Your task to perform on an android device: manage bookmarks in the chrome app Image 0: 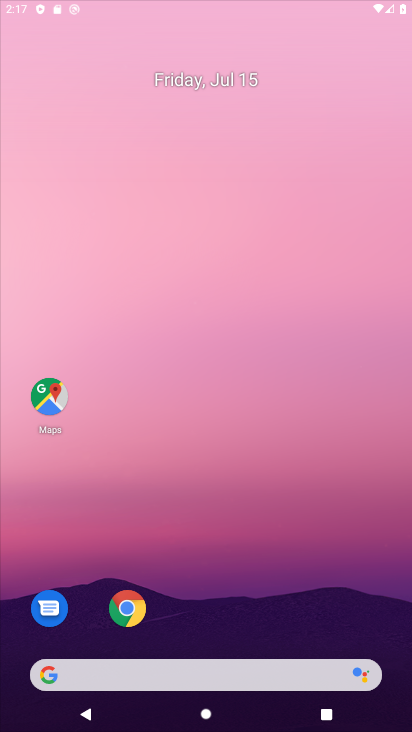
Step 0: click (267, 21)
Your task to perform on an android device: manage bookmarks in the chrome app Image 1: 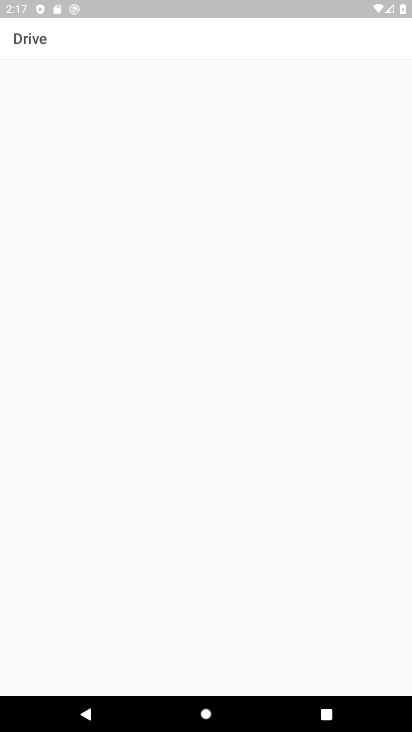
Step 1: press home button
Your task to perform on an android device: manage bookmarks in the chrome app Image 2: 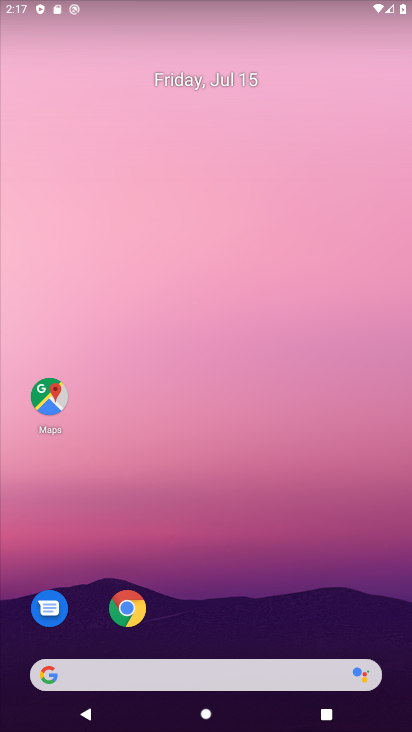
Step 2: drag from (348, 639) to (260, 96)
Your task to perform on an android device: manage bookmarks in the chrome app Image 3: 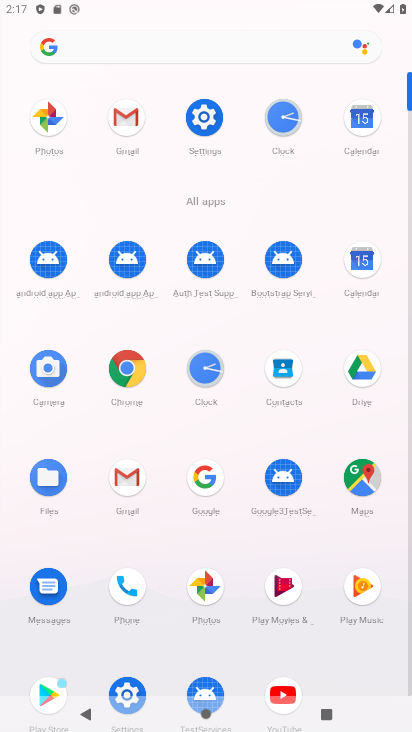
Step 3: click (130, 376)
Your task to perform on an android device: manage bookmarks in the chrome app Image 4: 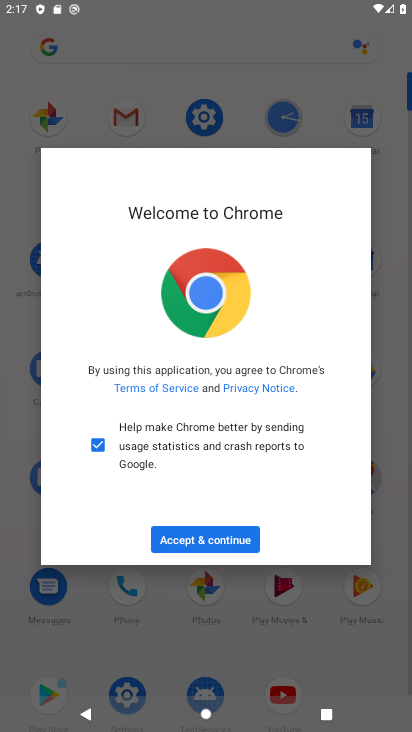
Step 4: click (203, 537)
Your task to perform on an android device: manage bookmarks in the chrome app Image 5: 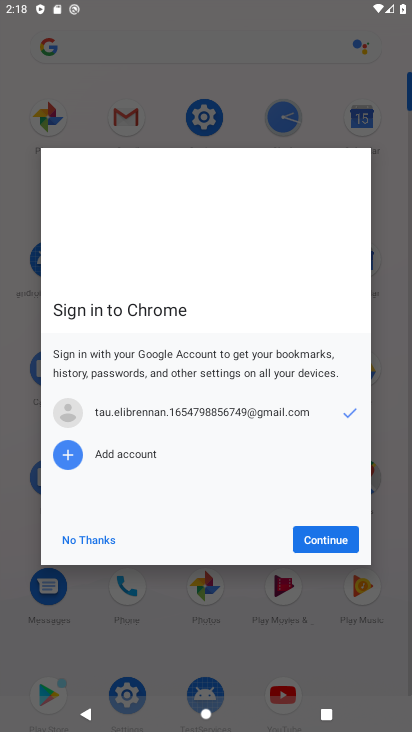
Step 5: click (324, 537)
Your task to perform on an android device: manage bookmarks in the chrome app Image 6: 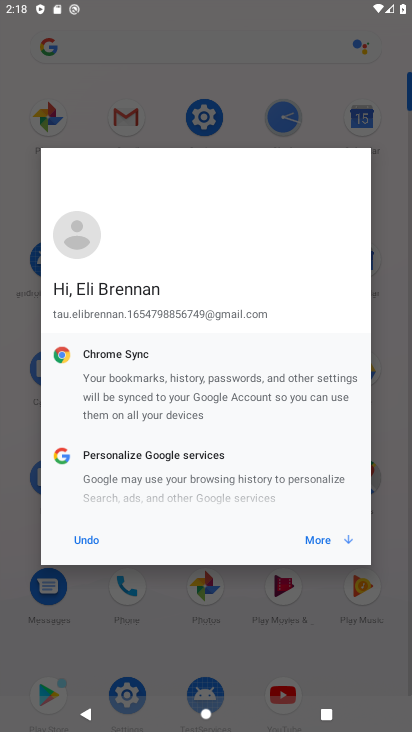
Step 6: click (324, 537)
Your task to perform on an android device: manage bookmarks in the chrome app Image 7: 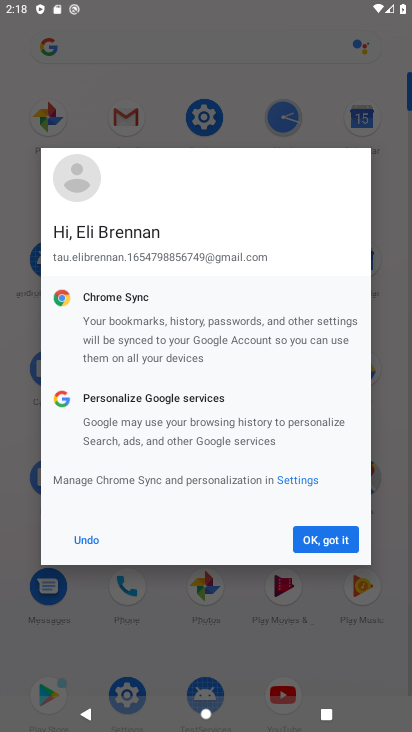
Step 7: click (348, 541)
Your task to perform on an android device: manage bookmarks in the chrome app Image 8: 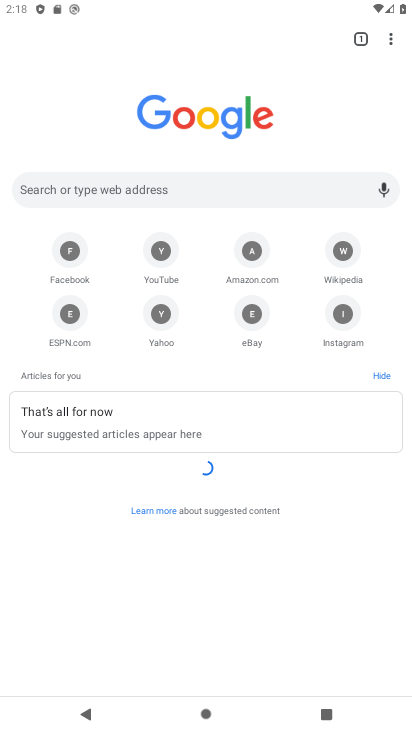
Step 8: click (396, 33)
Your task to perform on an android device: manage bookmarks in the chrome app Image 9: 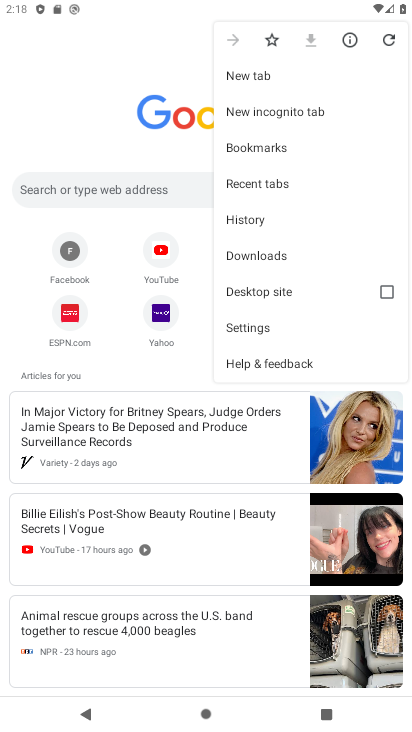
Step 9: click (339, 150)
Your task to perform on an android device: manage bookmarks in the chrome app Image 10: 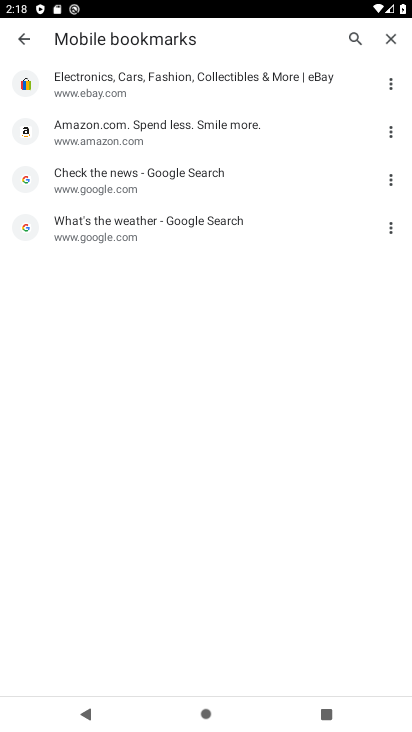
Step 10: click (233, 86)
Your task to perform on an android device: manage bookmarks in the chrome app Image 11: 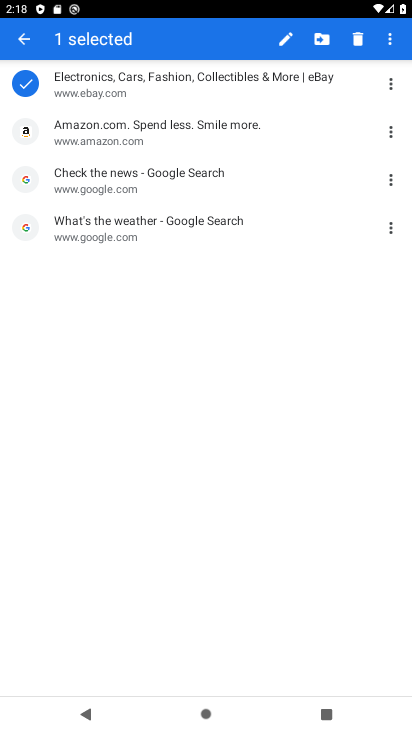
Step 11: click (326, 45)
Your task to perform on an android device: manage bookmarks in the chrome app Image 12: 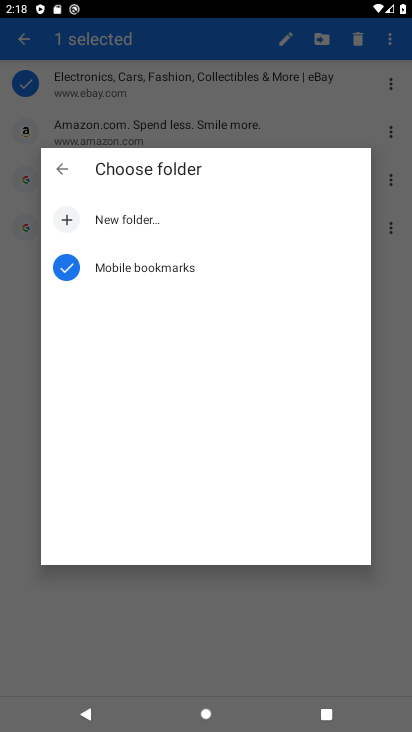
Step 12: click (186, 263)
Your task to perform on an android device: manage bookmarks in the chrome app Image 13: 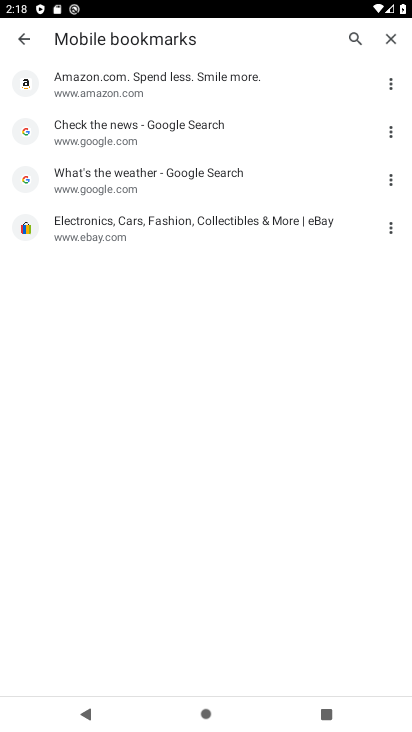
Step 13: task complete